Your task to perform on an android device: Open maps Image 0: 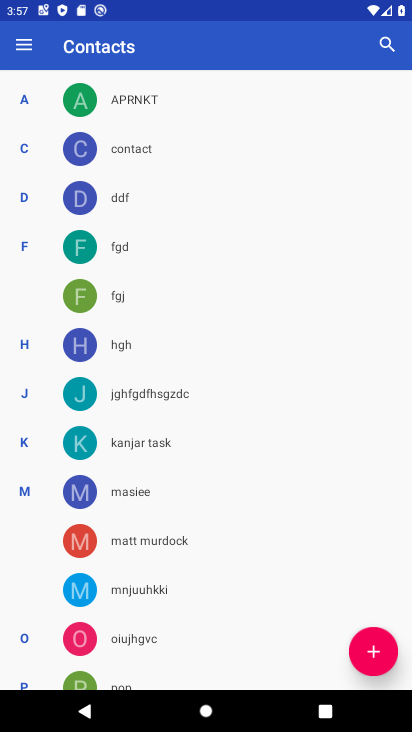
Step 0: press home button
Your task to perform on an android device: Open maps Image 1: 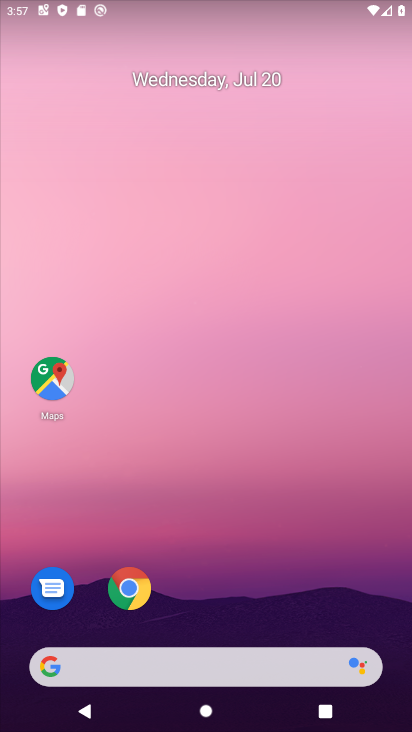
Step 1: drag from (270, 566) to (306, 39)
Your task to perform on an android device: Open maps Image 2: 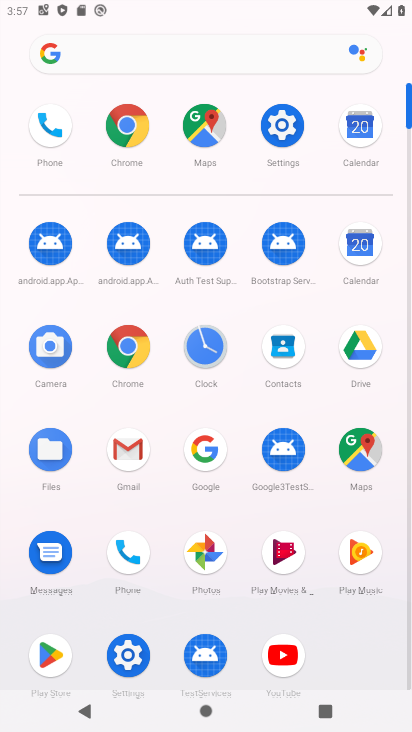
Step 2: click (202, 124)
Your task to perform on an android device: Open maps Image 3: 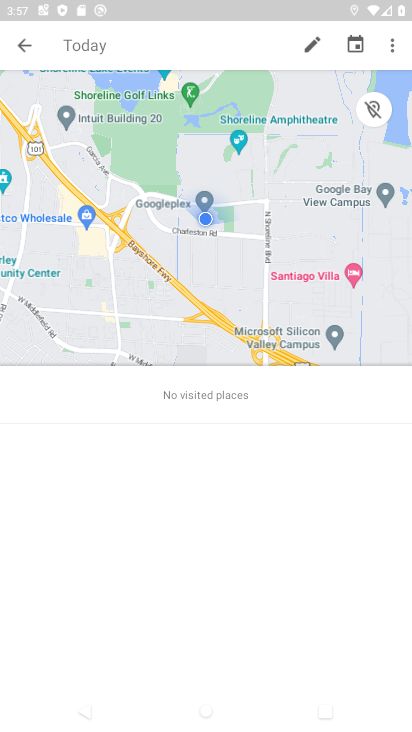
Step 3: task complete